Your task to perform on an android device: Search for sushi restaurants on Maps Image 0: 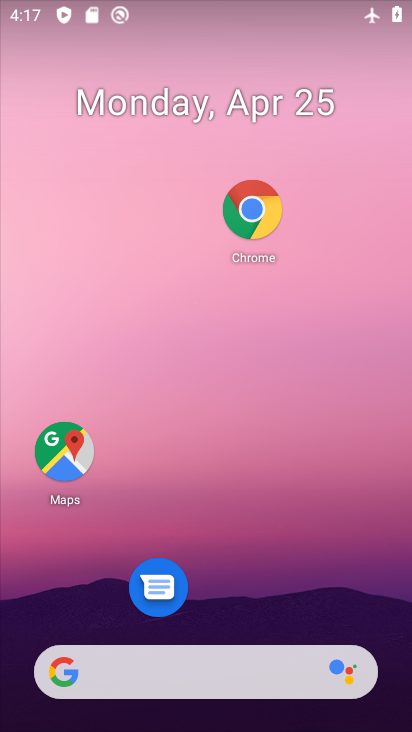
Step 0: click (69, 452)
Your task to perform on an android device: Search for sushi restaurants on Maps Image 1: 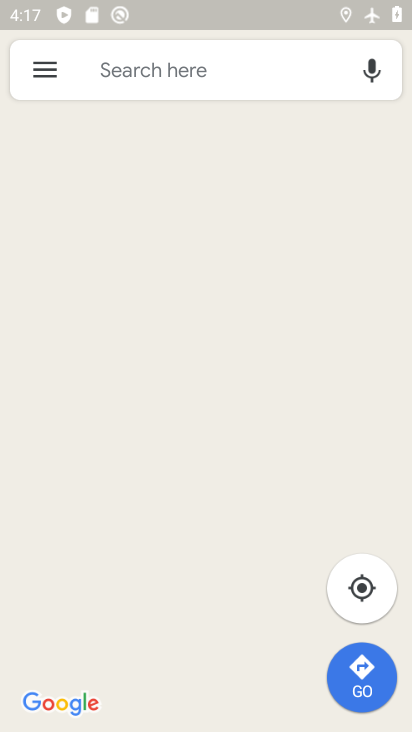
Step 1: click (177, 67)
Your task to perform on an android device: Search for sushi restaurants on Maps Image 2: 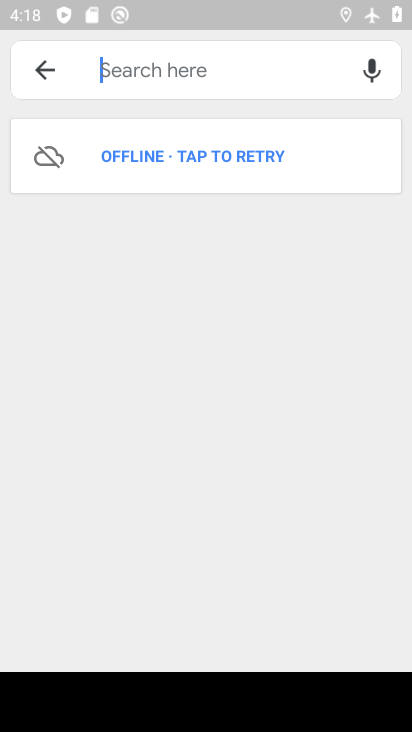
Step 2: type "sushi restaurants "
Your task to perform on an android device: Search for sushi restaurants on Maps Image 3: 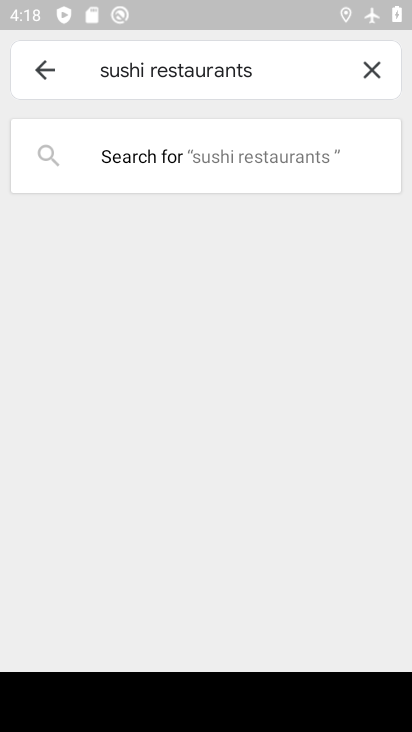
Step 3: click (214, 148)
Your task to perform on an android device: Search for sushi restaurants on Maps Image 4: 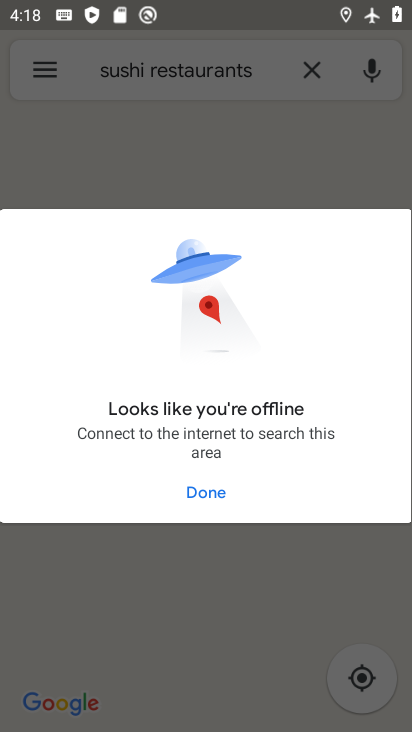
Step 4: task complete